Your task to perform on an android device: choose inbox layout in the gmail app Image 0: 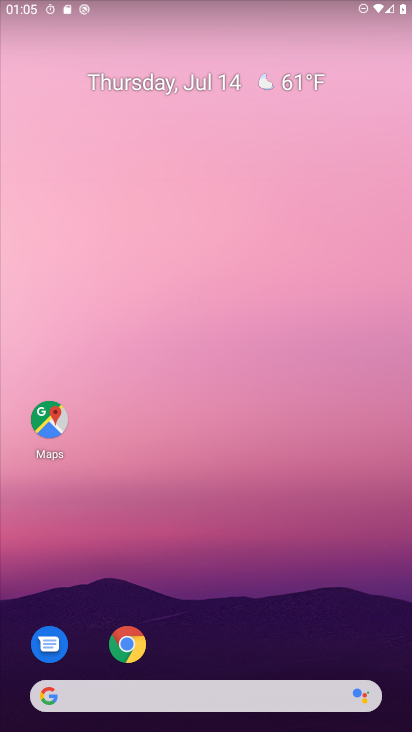
Step 0: drag from (249, 666) to (206, 108)
Your task to perform on an android device: choose inbox layout in the gmail app Image 1: 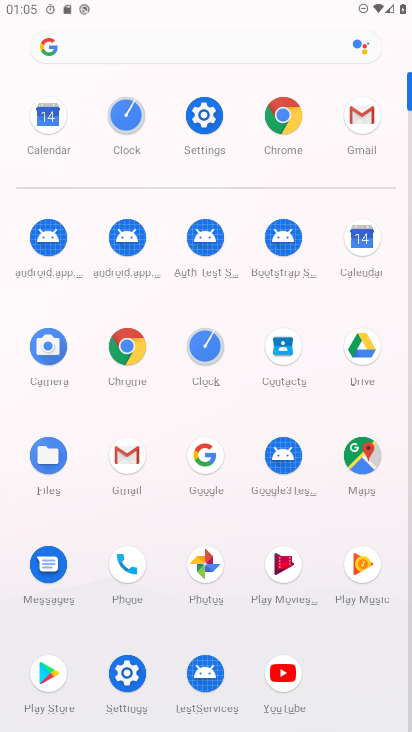
Step 1: click (359, 112)
Your task to perform on an android device: choose inbox layout in the gmail app Image 2: 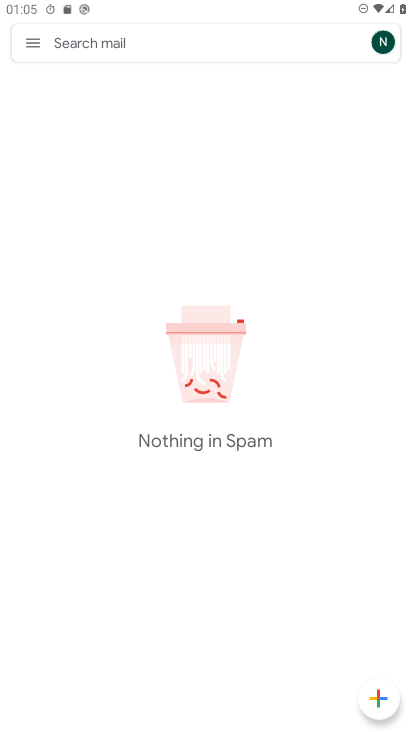
Step 2: click (28, 41)
Your task to perform on an android device: choose inbox layout in the gmail app Image 3: 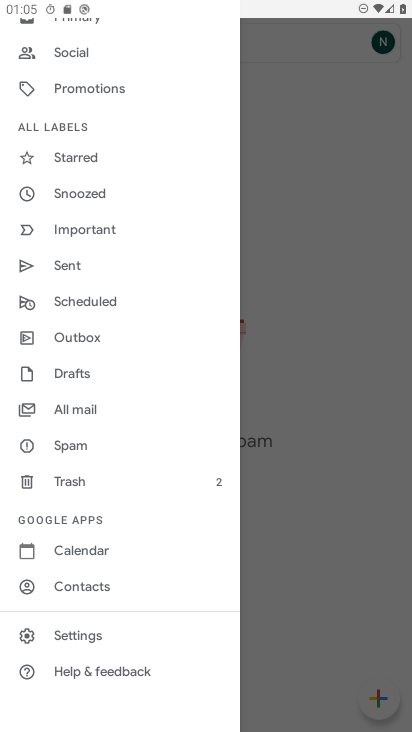
Step 3: click (86, 642)
Your task to perform on an android device: choose inbox layout in the gmail app Image 4: 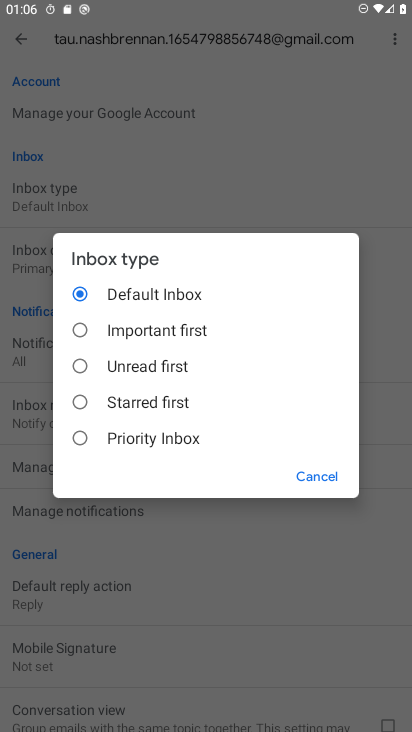
Step 4: task complete